Your task to perform on an android device: toggle javascript in the chrome app Image 0: 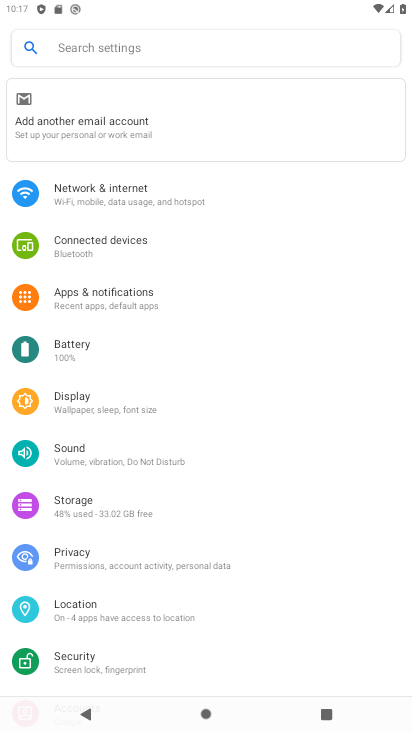
Step 0: press home button
Your task to perform on an android device: toggle javascript in the chrome app Image 1: 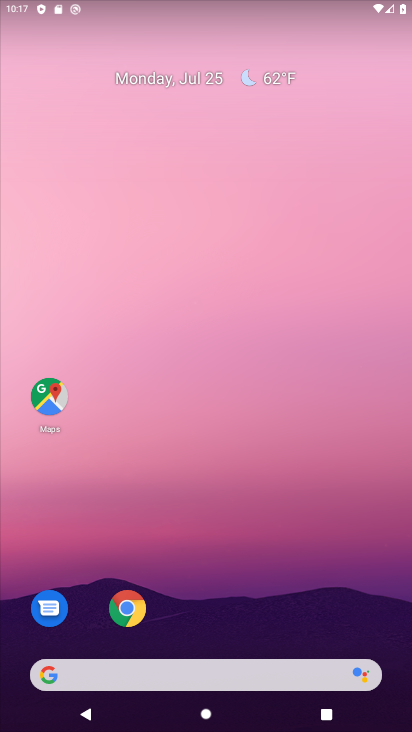
Step 1: click (115, 615)
Your task to perform on an android device: toggle javascript in the chrome app Image 2: 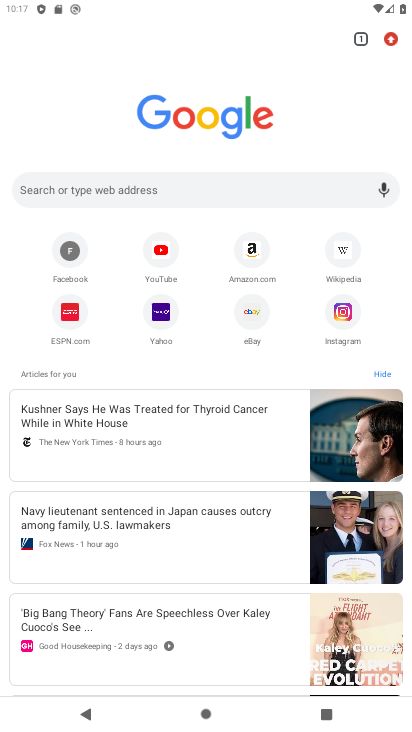
Step 2: click (389, 34)
Your task to perform on an android device: toggle javascript in the chrome app Image 3: 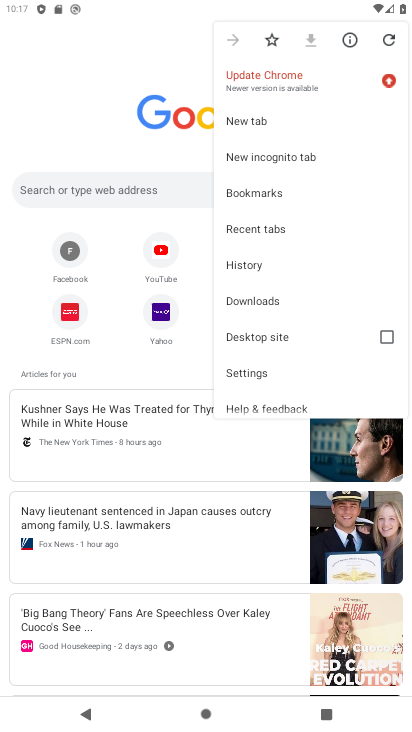
Step 3: click (251, 364)
Your task to perform on an android device: toggle javascript in the chrome app Image 4: 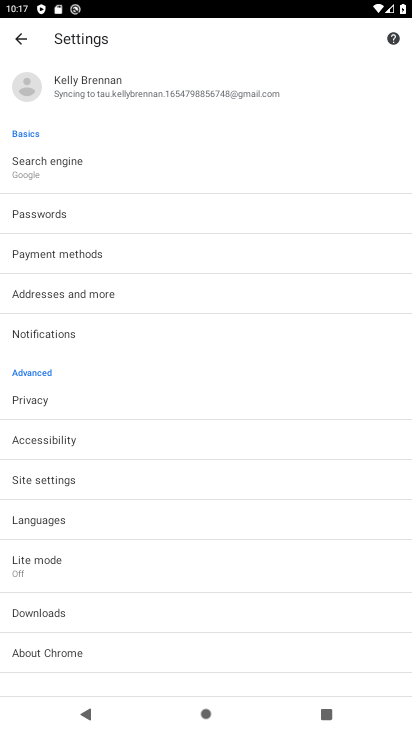
Step 4: click (28, 483)
Your task to perform on an android device: toggle javascript in the chrome app Image 5: 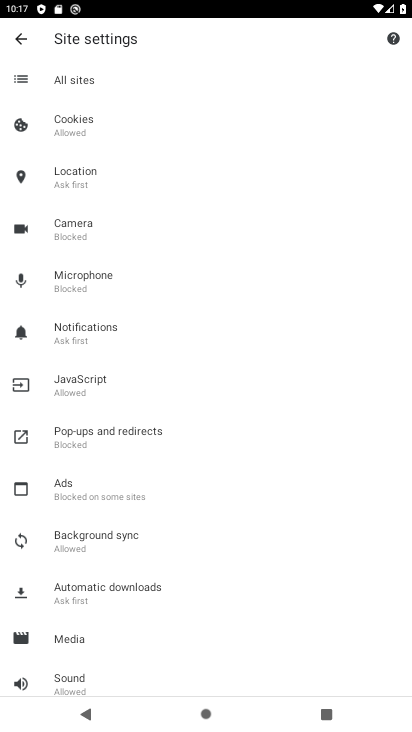
Step 5: click (113, 404)
Your task to perform on an android device: toggle javascript in the chrome app Image 6: 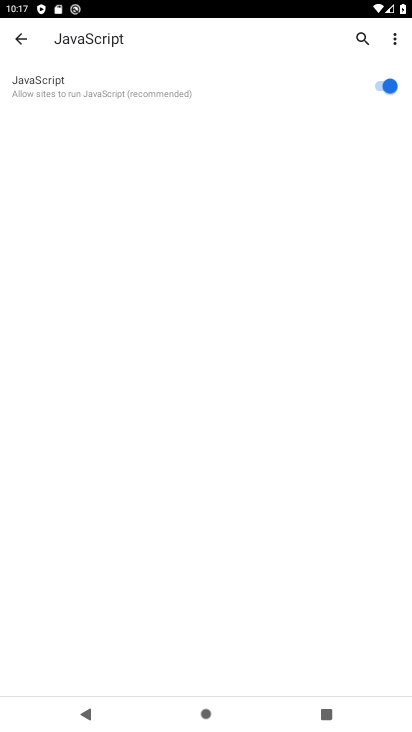
Step 6: click (379, 91)
Your task to perform on an android device: toggle javascript in the chrome app Image 7: 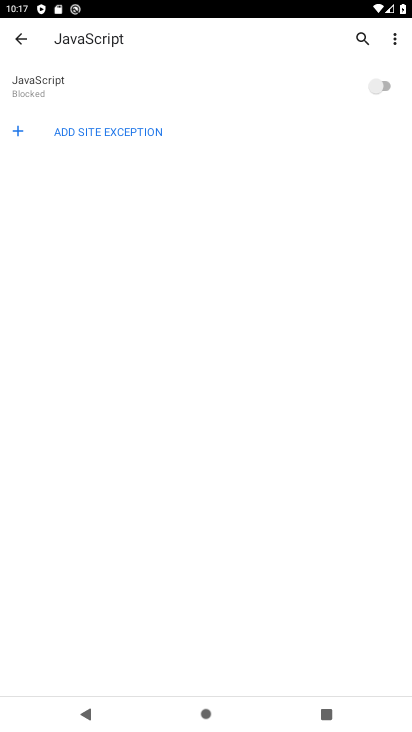
Step 7: task complete